Your task to perform on an android device: turn off wifi Image 0: 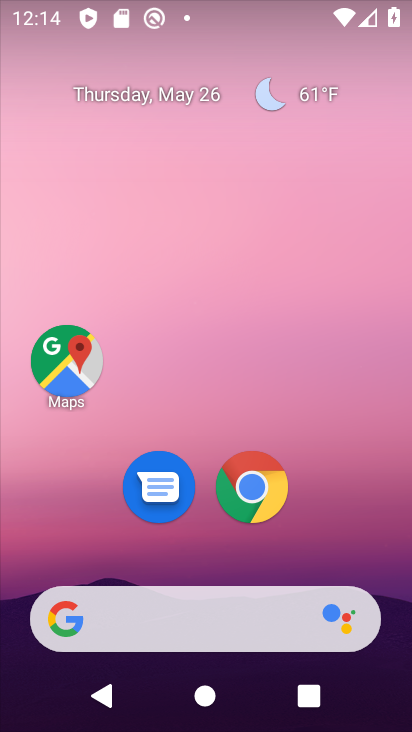
Step 0: drag from (252, 684) to (291, 124)
Your task to perform on an android device: turn off wifi Image 1: 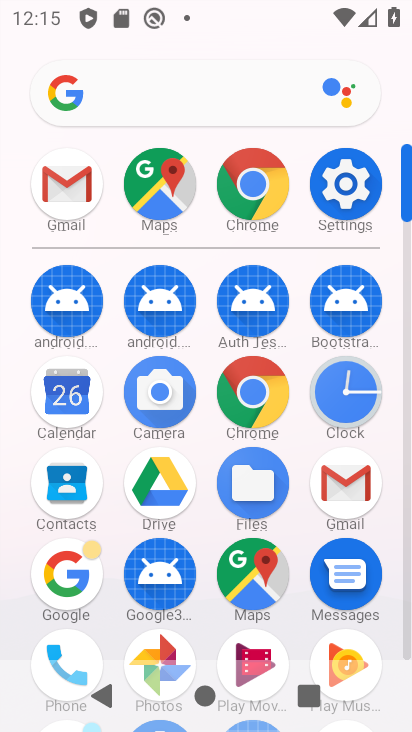
Step 1: click (334, 199)
Your task to perform on an android device: turn off wifi Image 2: 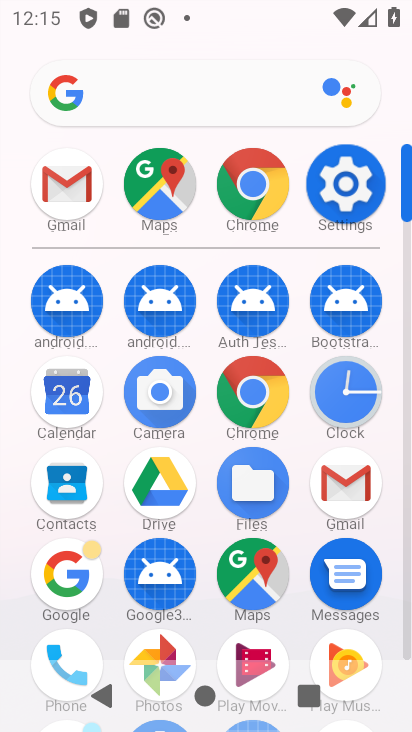
Step 2: click (334, 199)
Your task to perform on an android device: turn off wifi Image 3: 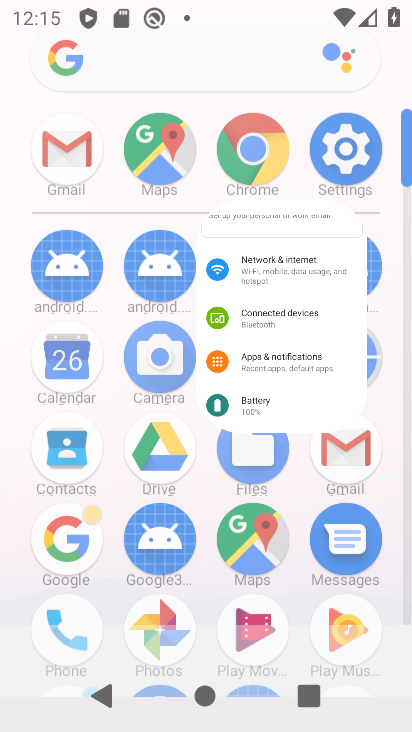
Step 3: click (334, 199)
Your task to perform on an android device: turn off wifi Image 4: 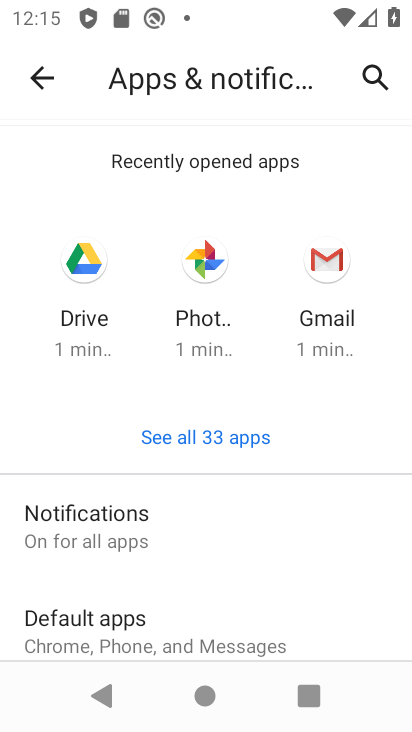
Step 4: press back button
Your task to perform on an android device: turn off wifi Image 5: 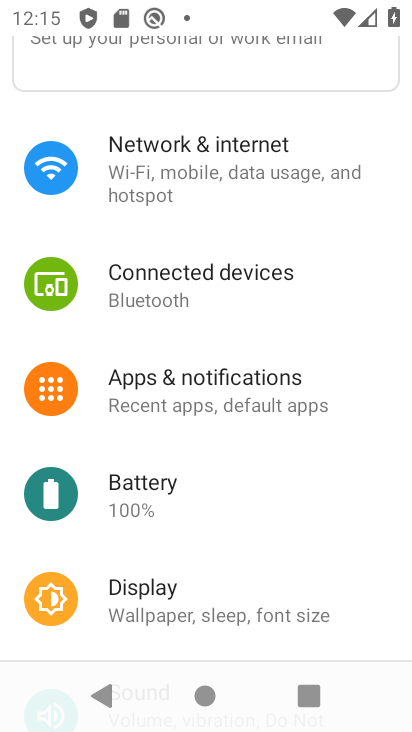
Step 5: click (211, 165)
Your task to perform on an android device: turn off wifi Image 6: 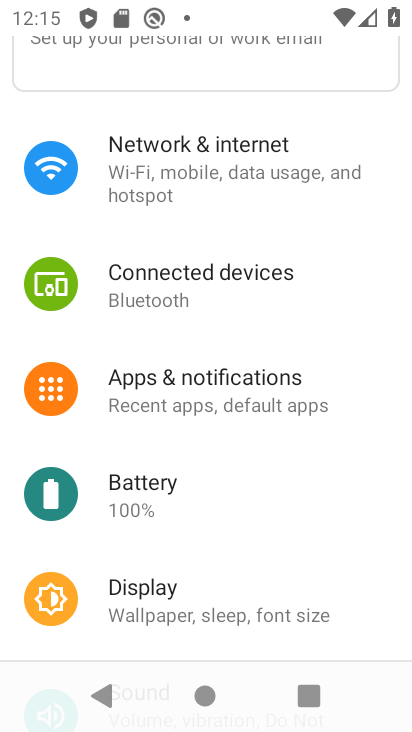
Step 6: click (210, 165)
Your task to perform on an android device: turn off wifi Image 7: 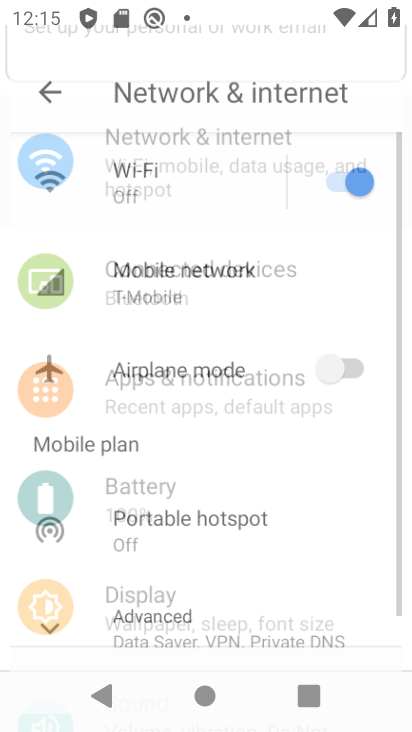
Step 7: click (210, 165)
Your task to perform on an android device: turn off wifi Image 8: 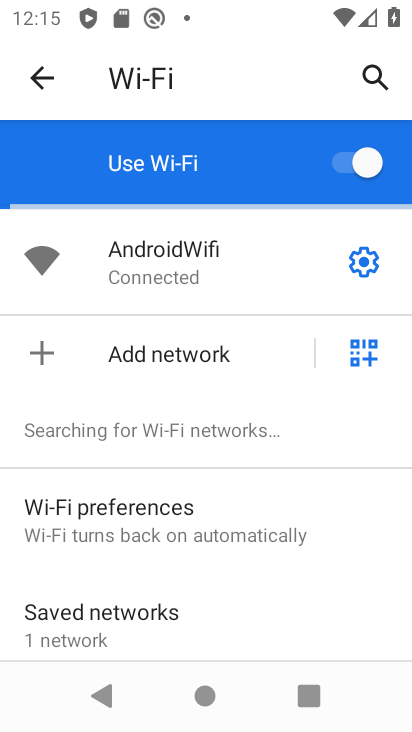
Step 8: click (356, 172)
Your task to perform on an android device: turn off wifi Image 9: 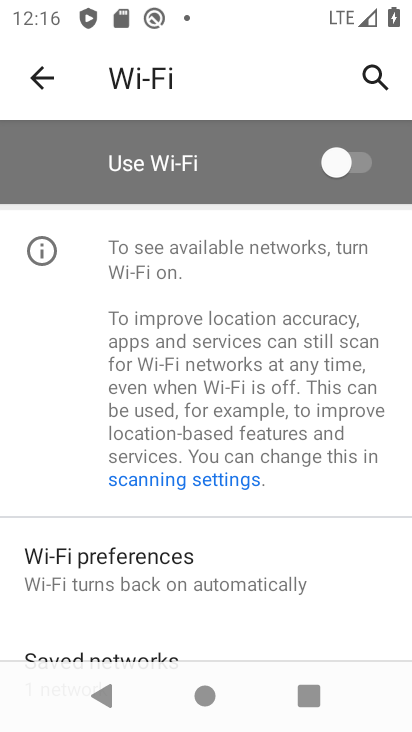
Step 9: task complete